Your task to perform on an android device: see creations saved in the google photos Image 0: 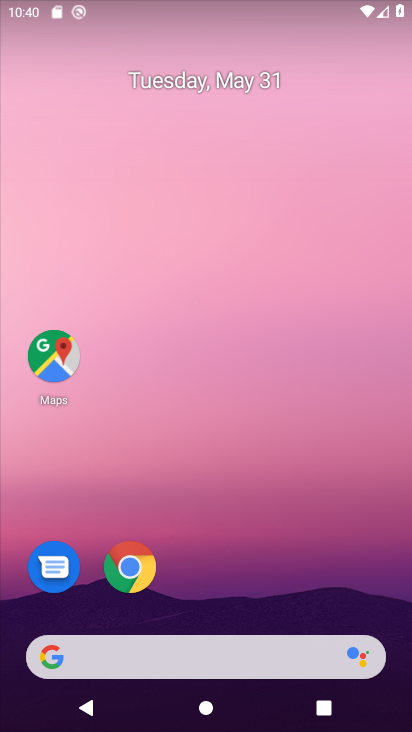
Step 0: drag from (185, 623) to (191, 60)
Your task to perform on an android device: see creations saved in the google photos Image 1: 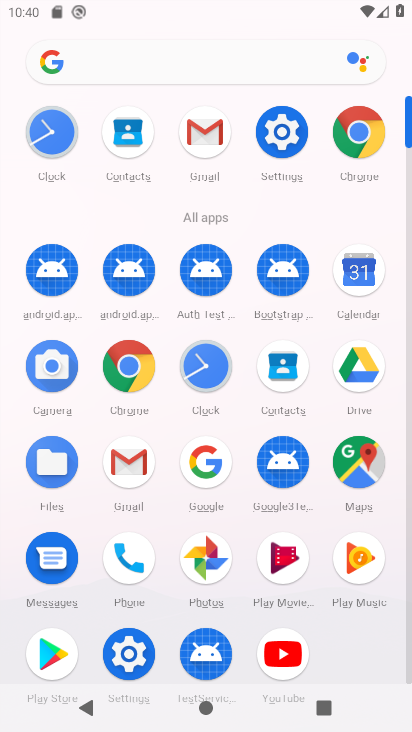
Step 1: click (199, 562)
Your task to perform on an android device: see creations saved in the google photos Image 2: 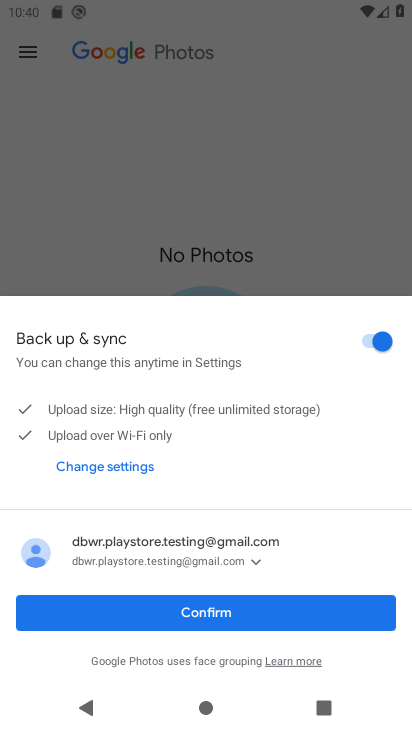
Step 2: click (133, 625)
Your task to perform on an android device: see creations saved in the google photos Image 3: 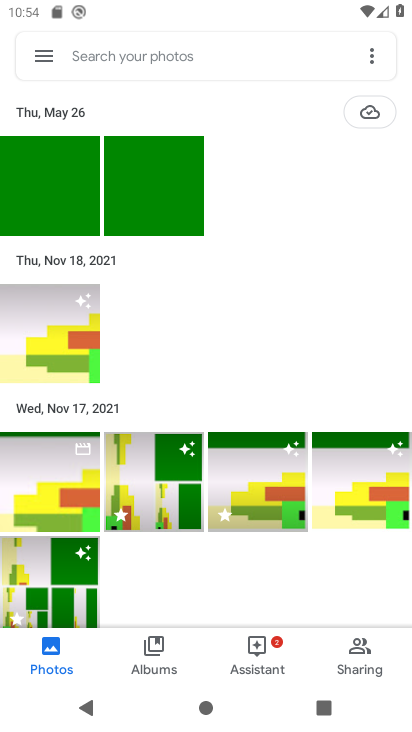
Step 3: task complete